Your task to perform on an android device: Open accessibility settings Image 0: 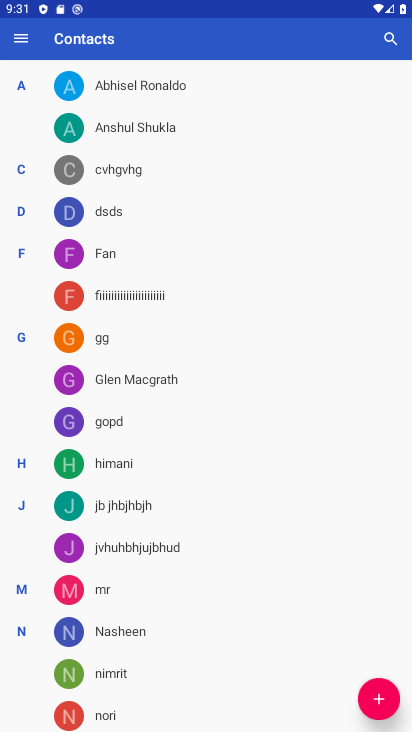
Step 0: press home button
Your task to perform on an android device: Open accessibility settings Image 1: 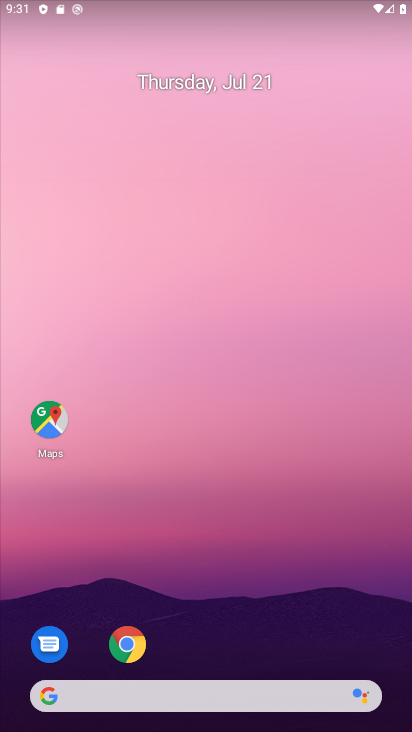
Step 1: drag from (225, 639) to (173, 274)
Your task to perform on an android device: Open accessibility settings Image 2: 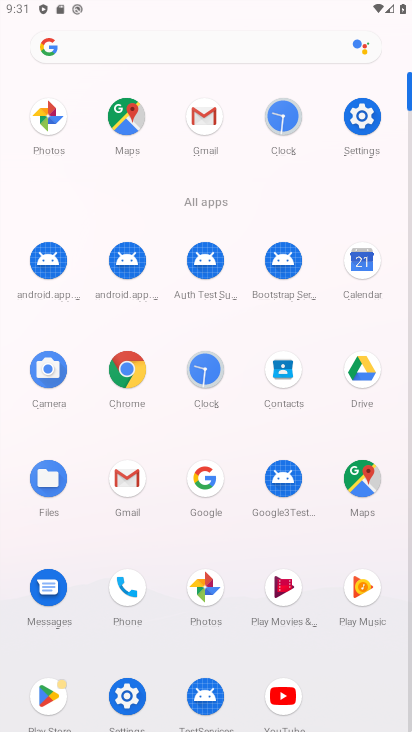
Step 2: click (366, 117)
Your task to perform on an android device: Open accessibility settings Image 3: 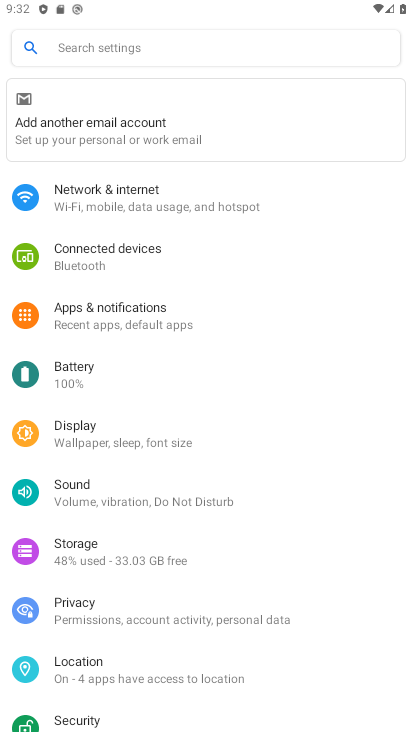
Step 3: drag from (199, 642) to (212, 388)
Your task to perform on an android device: Open accessibility settings Image 4: 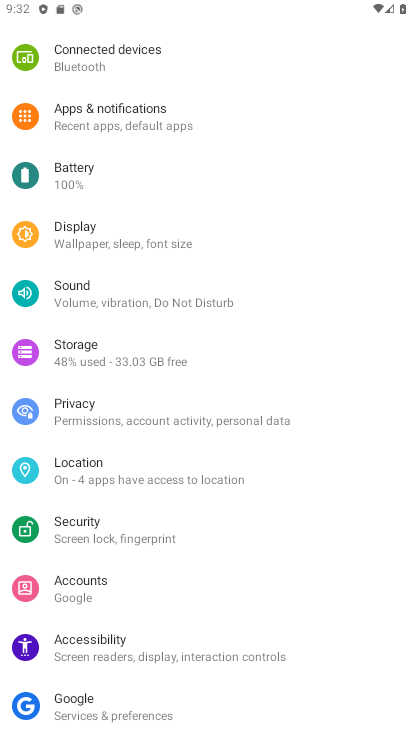
Step 4: click (137, 632)
Your task to perform on an android device: Open accessibility settings Image 5: 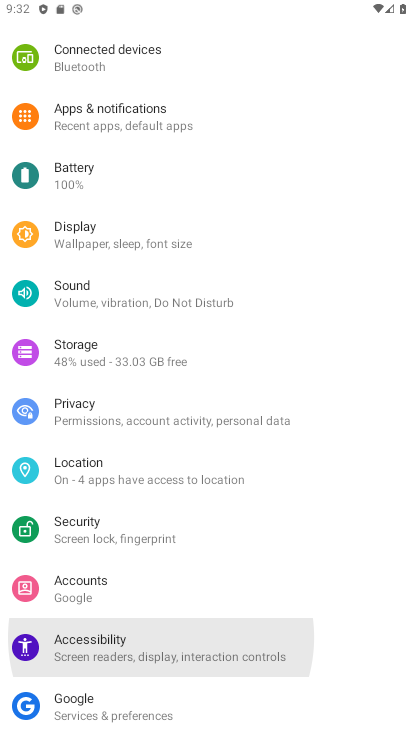
Step 5: task complete